Your task to perform on an android device: empty trash in google photos Image 0: 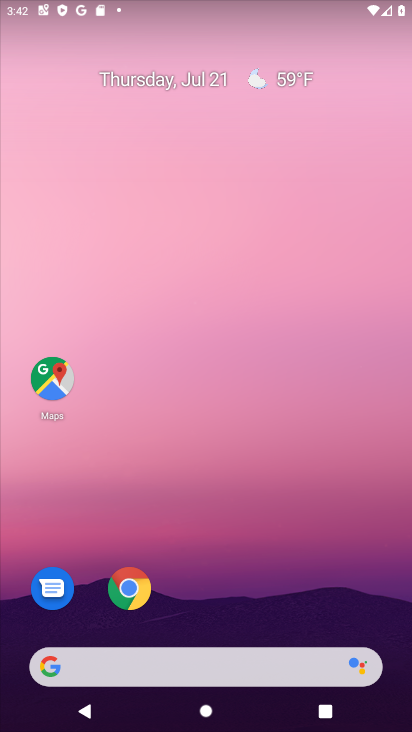
Step 0: drag from (237, 703) to (237, 167)
Your task to perform on an android device: empty trash in google photos Image 1: 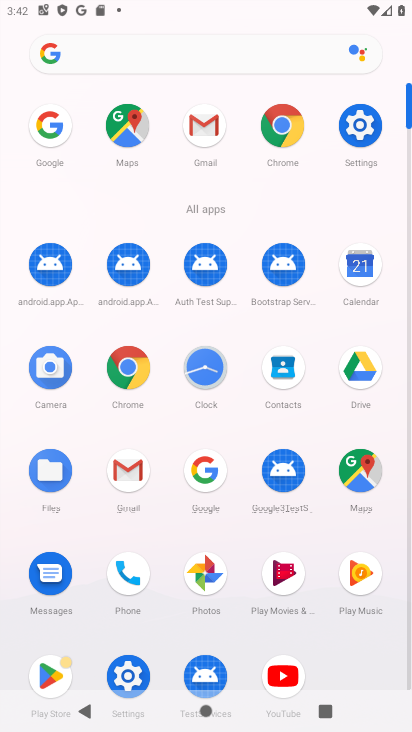
Step 1: click (202, 571)
Your task to perform on an android device: empty trash in google photos Image 2: 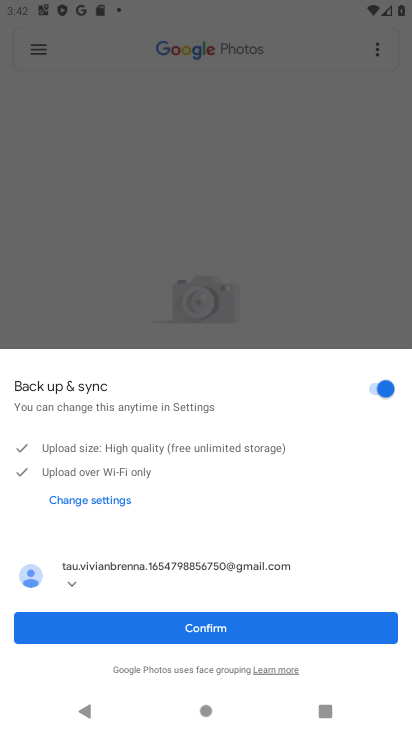
Step 2: click (209, 633)
Your task to perform on an android device: empty trash in google photos Image 3: 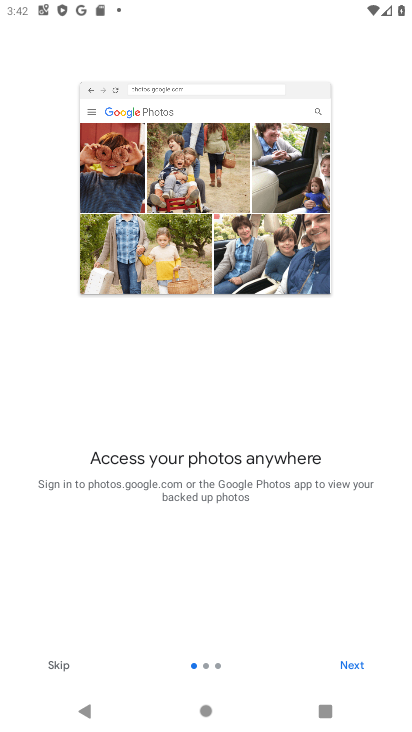
Step 3: click (351, 660)
Your task to perform on an android device: empty trash in google photos Image 4: 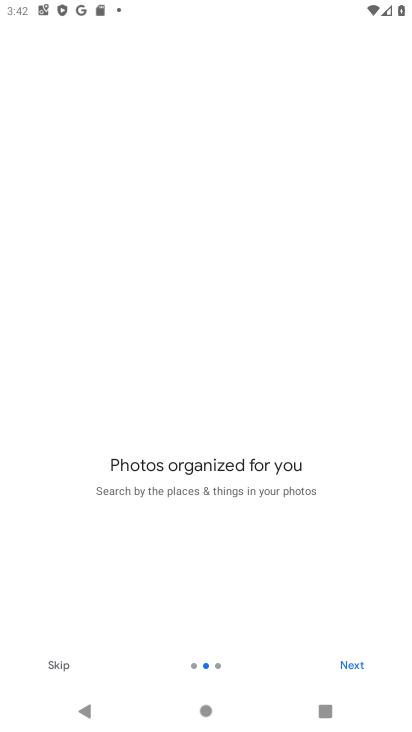
Step 4: click (352, 667)
Your task to perform on an android device: empty trash in google photos Image 5: 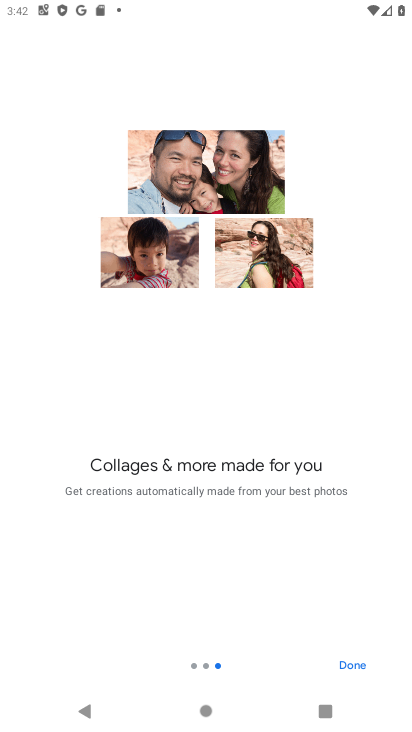
Step 5: click (350, 667)
Your task to perform on an android device: empty trash in google photos Image 6: 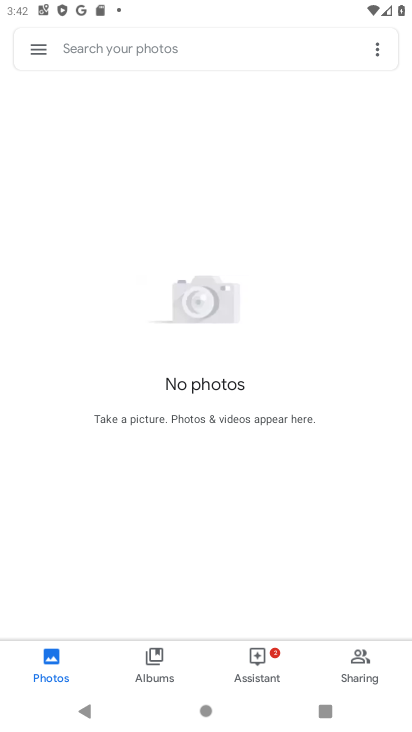
Step 6: click (36, 52)
Your task to perform on an android device: empty trash in google photos Image 7: 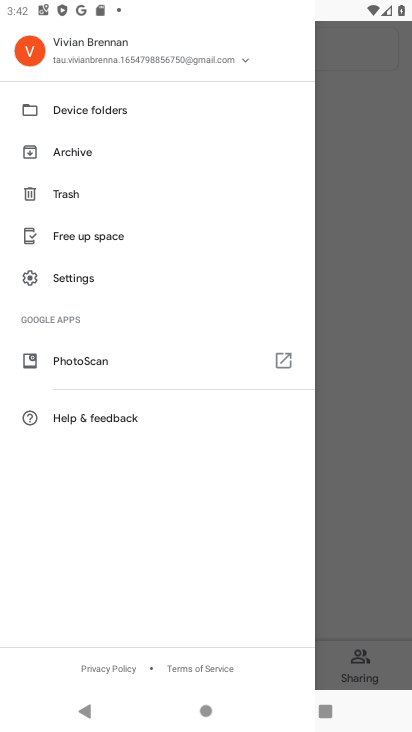
Step 7: click (62, 189)
Your task to perform on an android device: empty trash in google photos Image 8: 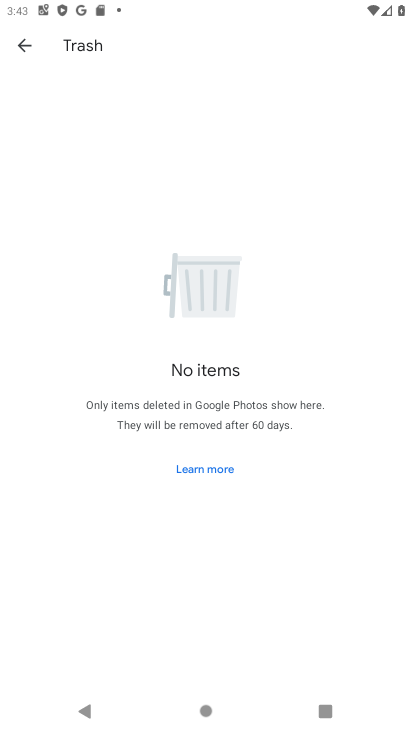
Step 8: task complete